Your task to perform on an android device: Open Reddit.com Image 0: 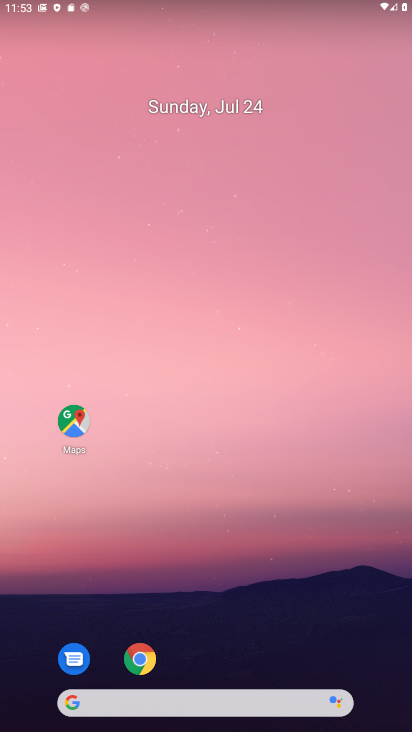
Step 0: click (226, 698)
Your task to perform on an android device: Open Reddit.com Image 1: 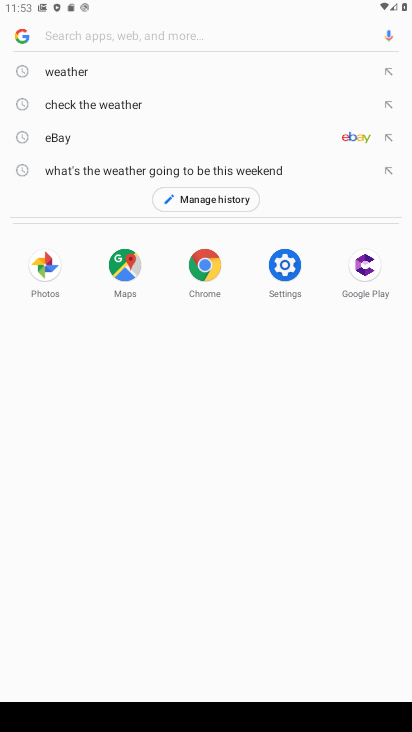
Step 1: type "Reddit.com"
Your task to perform on an android device: Open Reddit.com Image 2: 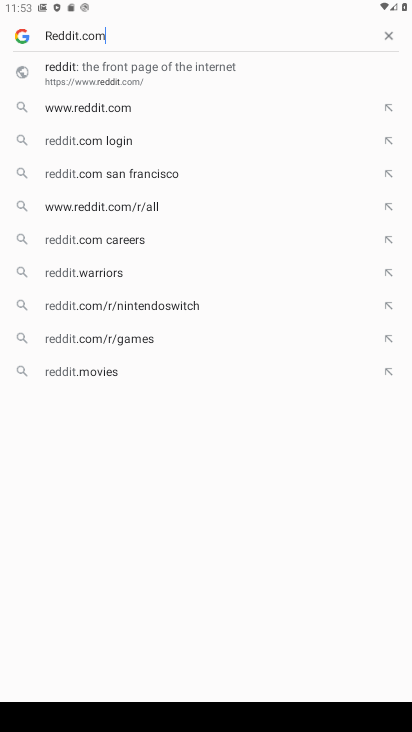
Step 2: press enter
Your task to perform on an android device: Open Reddit.com Image 3: 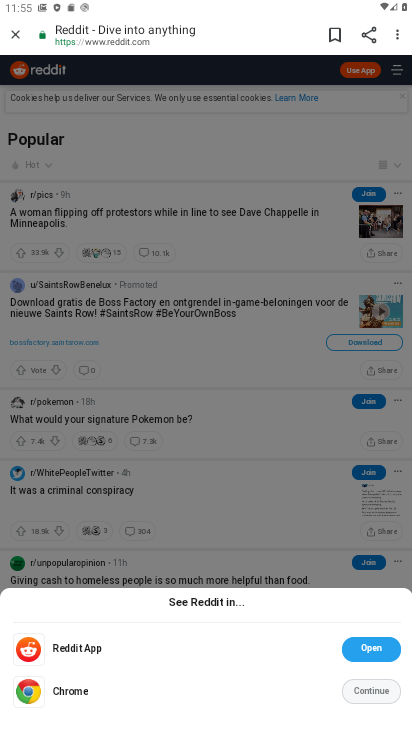
Step 3: task complete